Your task to perform on an android device: turn off wifi Image 0: 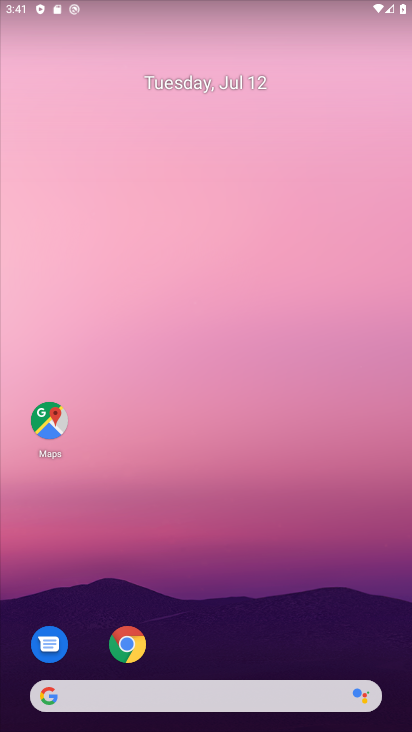
Step 0: drag from (372, 91) to (375, 528)
Your task to perform on an android device: turn off wifi Image 1: 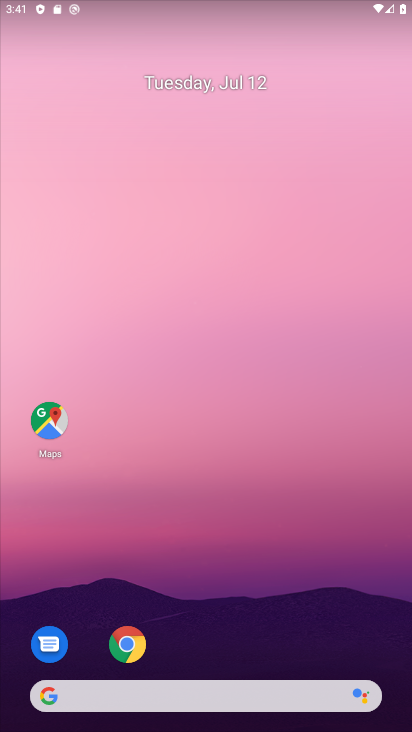
Step 1: drag from (377, 13) to (307, 411)
Your task to perform on an android device: turn off wifi Image 2: 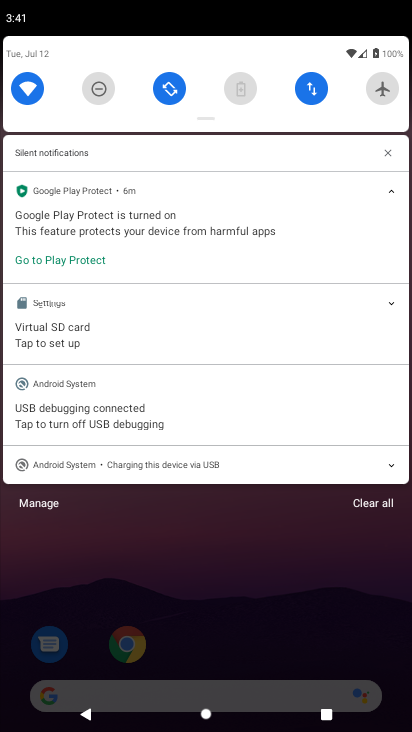
Step 2: click (23, 80)
Your task to perform on an android device: turn off wifi Image 3: 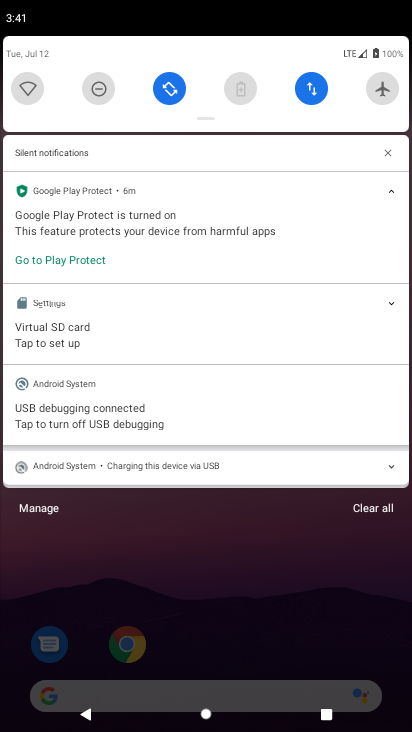
Step 3: task complete